Your task to perform on an android device: Open settings Image 0: 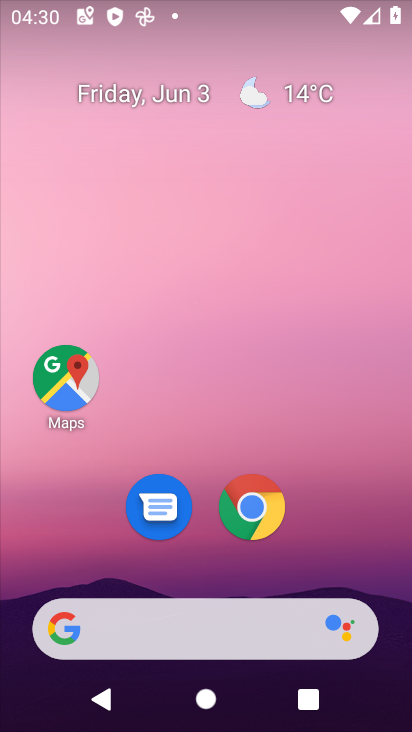
Step 0: drag from (371, 548) to (277, 136)
Your task to perform on an android device: Open settings Image 1: 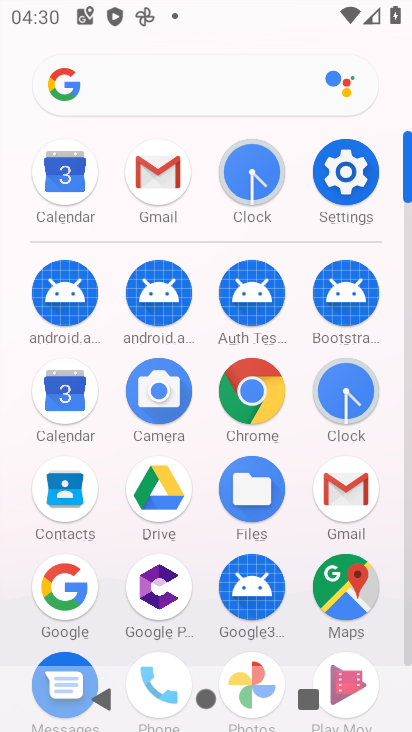
Step 1: click (364, 167)
Your task to perform on an android device: Open settings Image 2: 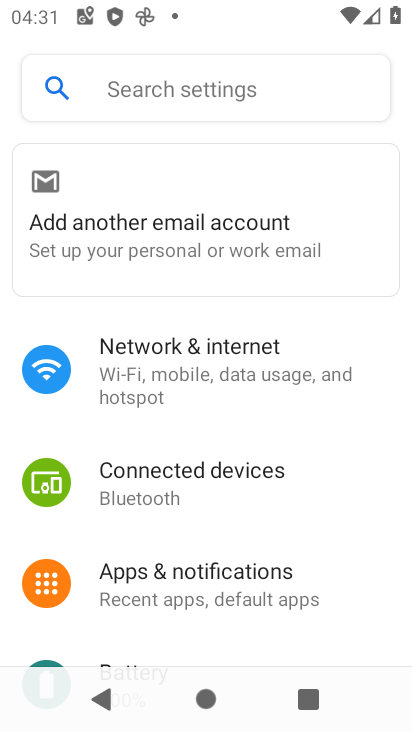
Step 2: task complete